Your task to perform on an android device: see tabs open on other devices in the chrome app Image 0: 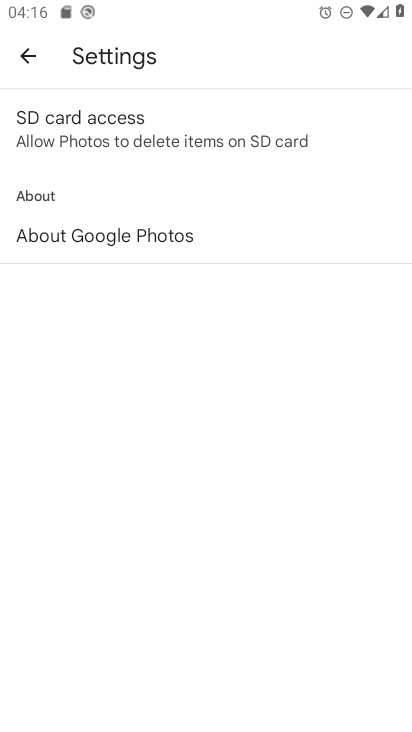
Step 0: press home button
Your task to perform on an android device: see tabs open on other devices in the chrome app Image 1: 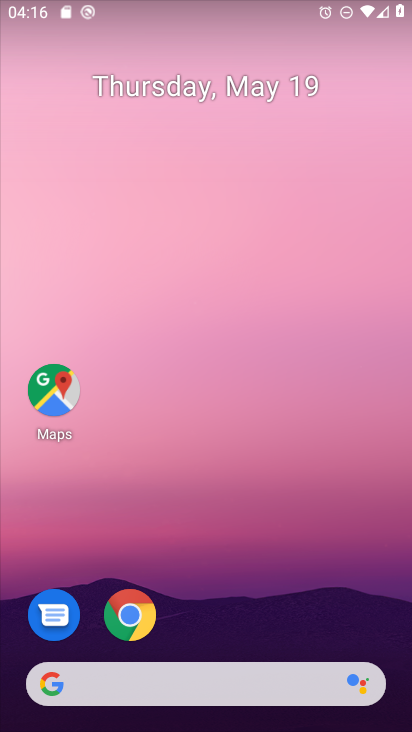
Step 1: drag from (245, 632) to (185, 47)
Your task to perform on an android device: see tabs open on other devices in the chrome app Image 2: 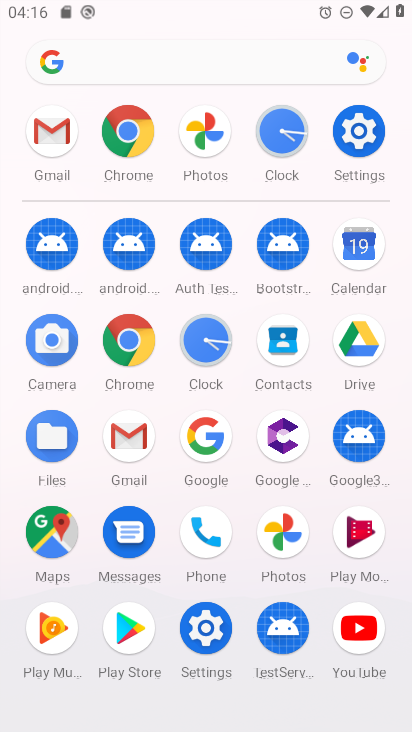
Step 2: click (150, 133)
Your task to perform on an android device: see tabs open on other devices in the chrome app Image 3: 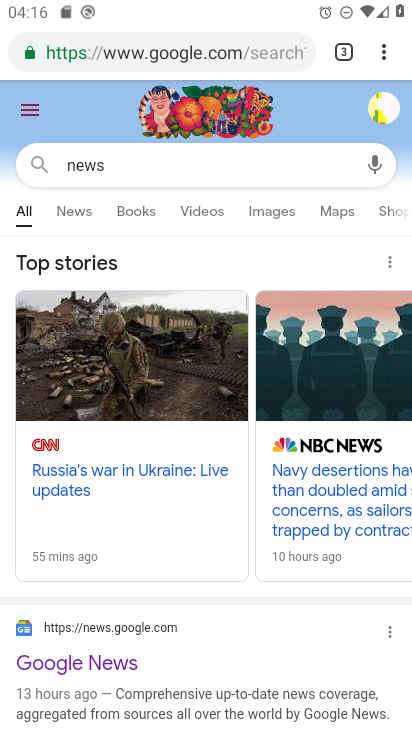
Step 3: click (385, 49)
Your task to perform on an android device: see tabs open on other devices in the chrome app Image 4: 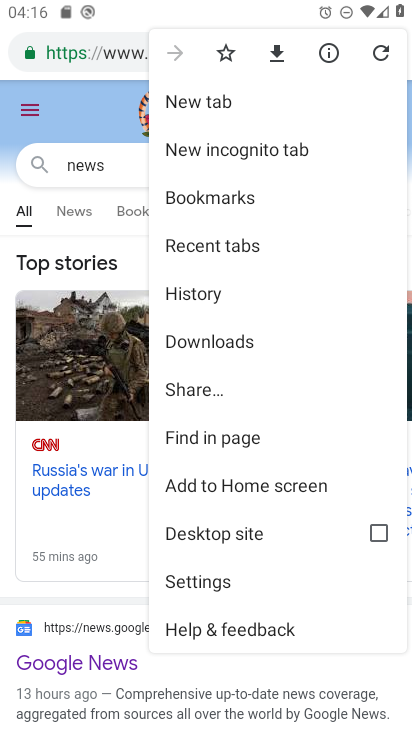
Step 4: click (242, 242)
Your task to perform on an android device: see tabs open on other devices in the chrome app Image 5: 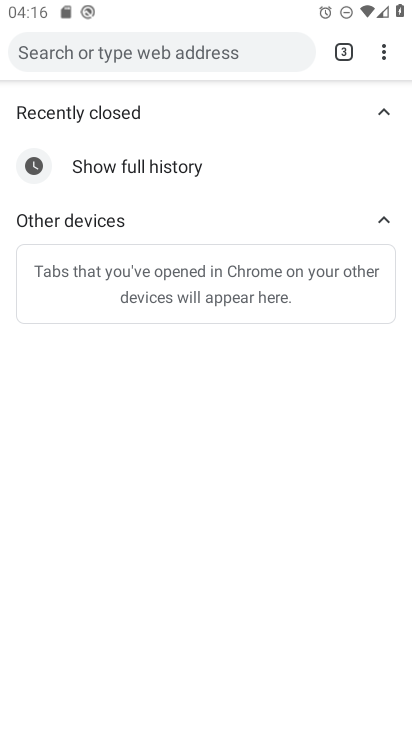
Step 5: task complete